Your task to perform on an android device: Open the calendar app, open the side menu, and click the "Day" option Image 0: 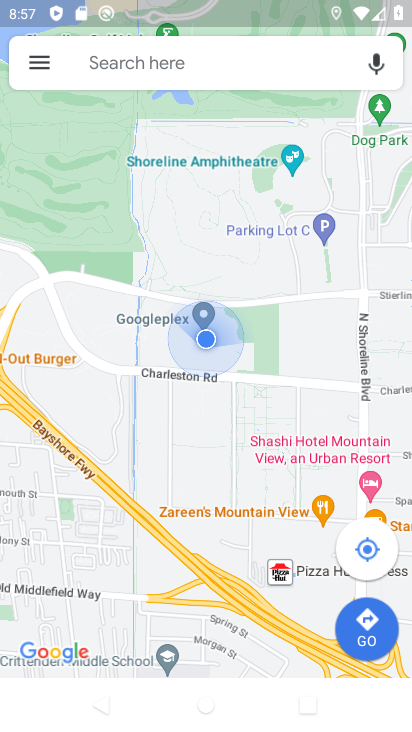
Step 0: press home button
Your task to perform on an android device: Open the calendar app, open the side menu, and click the "Day" option Image 1: 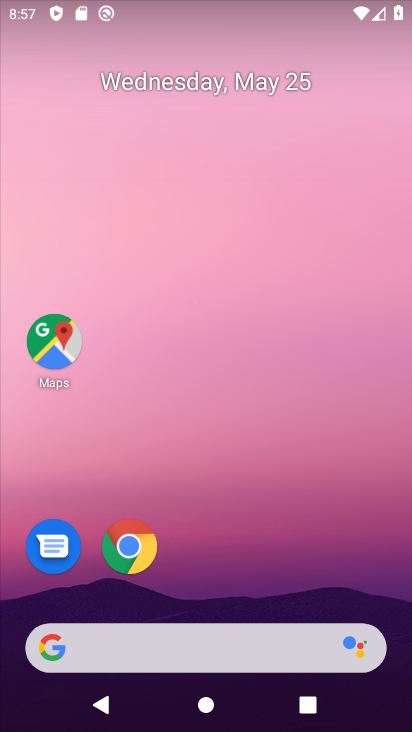
Step 1: drag from (226, 566) to (235, 130)
Your task to perform on an android device: Open the calendar app, open the side menu, and click the "Day" option Image 2: 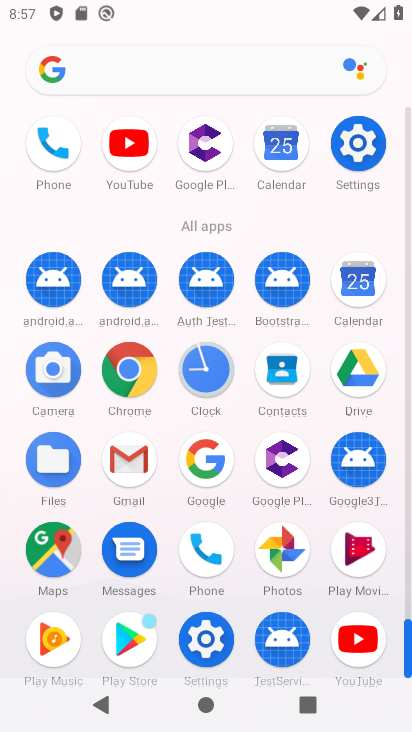
Step 2: click (359, 273)
Your task to perform on an android device: Open the calendar app, open the side menu, and click the "Day" option Image 3: 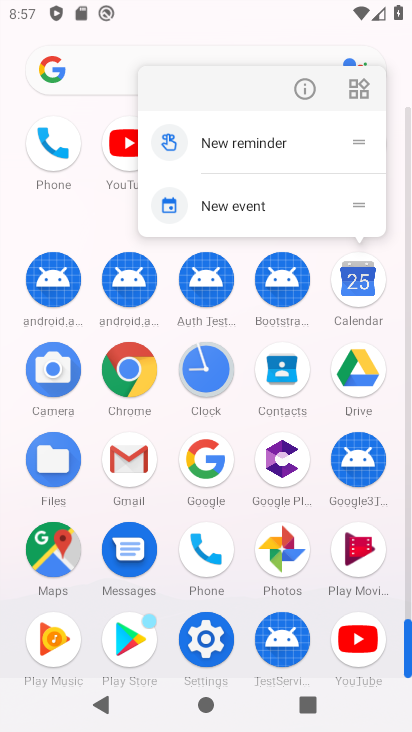
Step 3: click (346, 281)
Your task to perform on an android device: Open the calendar app, open the side menu, and click the "Day" option Image 4: 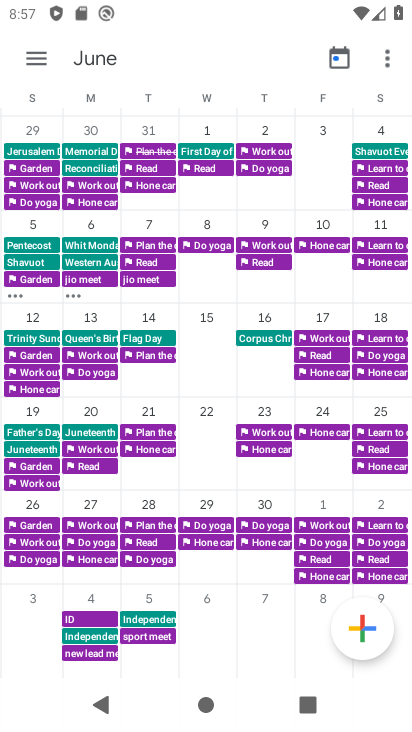
Step 4: click (31, 61)
Your task to perform on an android device: Open the calendar app, open the side menu, and click the "Day" option Image 5: 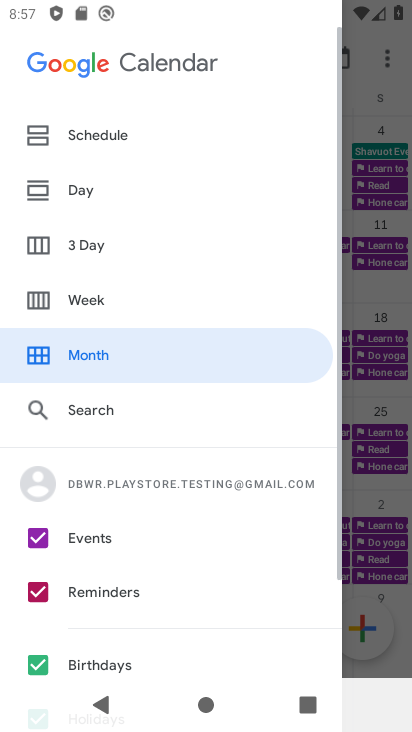
Step 5: click (76, 190)
Your task to perform on an android device: Open the calendar app, open the side menu, and click the "Day" option Image 6: 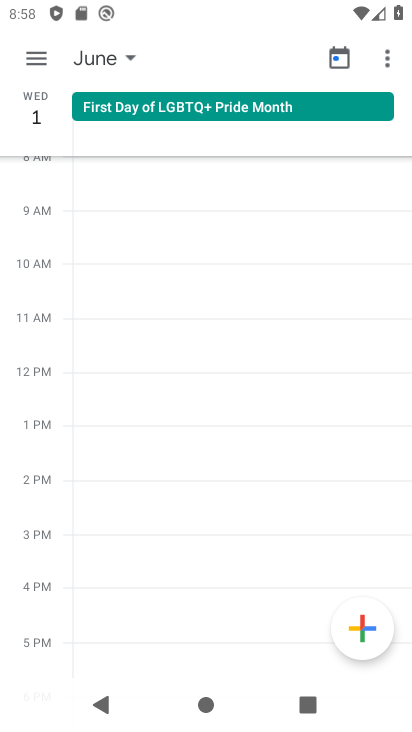
Step 6: task complete